Your task to perform on an android device: Do I have any events tomorrow? Image 0: 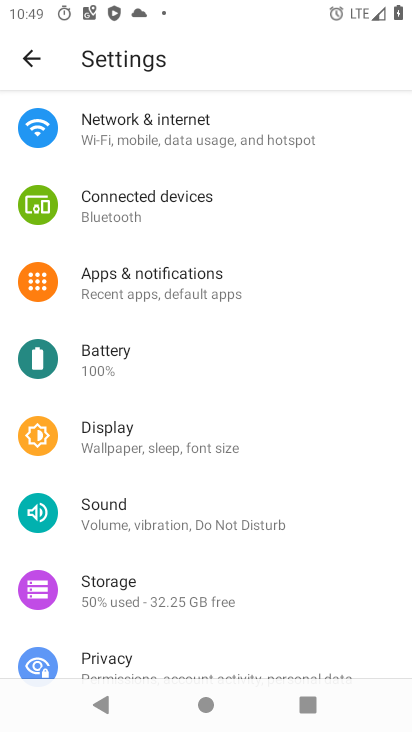
Step 0: press home button
Your task to perform on an android device: Do I have any events tomorrow? Image 1: 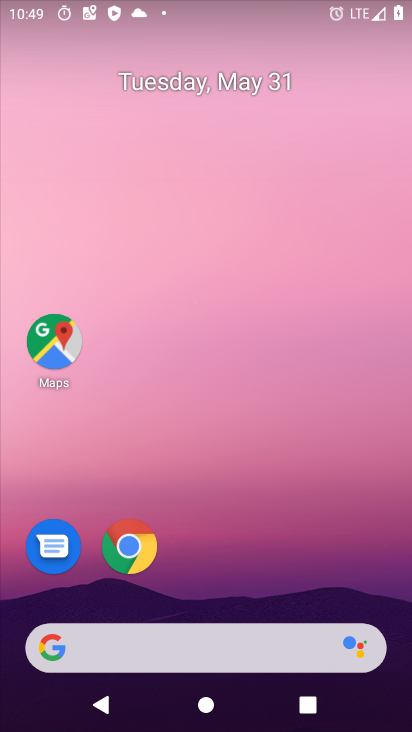
Step 1: drag from (224, 575) to (253, 288)
Your task to perform on an android device: Do I have any events tomorrow? Image 2: 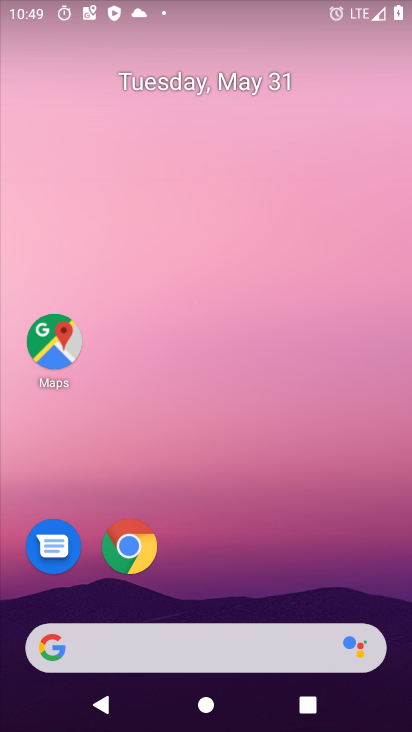
Step 2: drag from (277, 628) to (231, 55)
Your task to perform on an android device: Do I have any events tomorrow? Image 3: 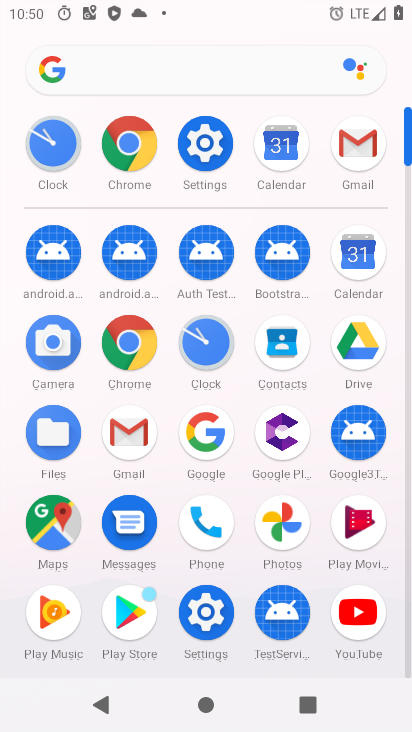
Step 3: click (276, 136)
Your task to perform on an android device: Do I have any events tomorrow? Image 4: 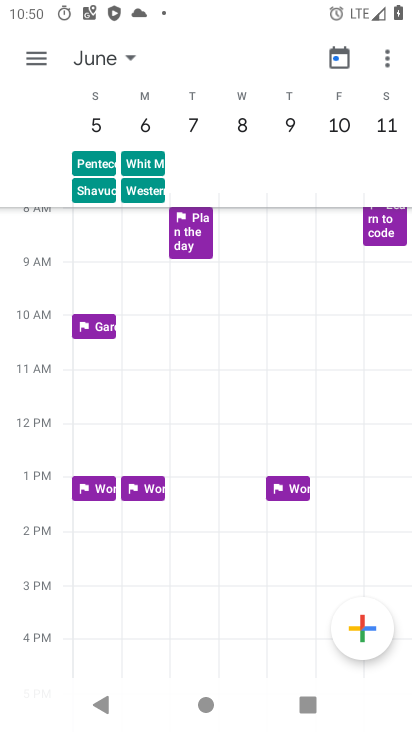
Step 4: drag from (149, 117) to (363, 110)
Your task to perform on an android device: Do I have any events tomorrow? Image 5: 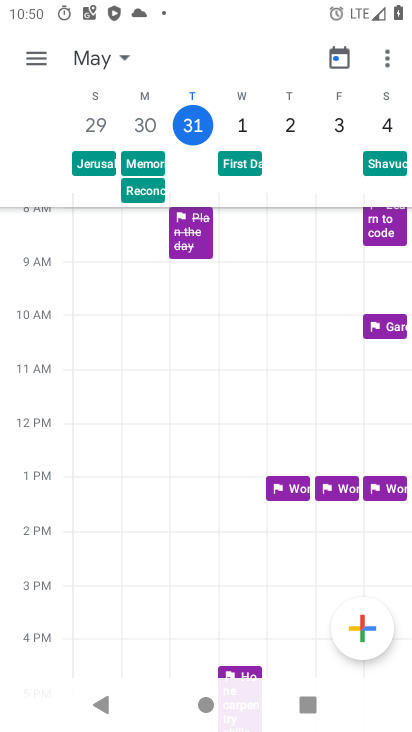
Step 5: click (278, 119)
Your task to perform on an android device: Do I have any events tomorrow? Image 6: 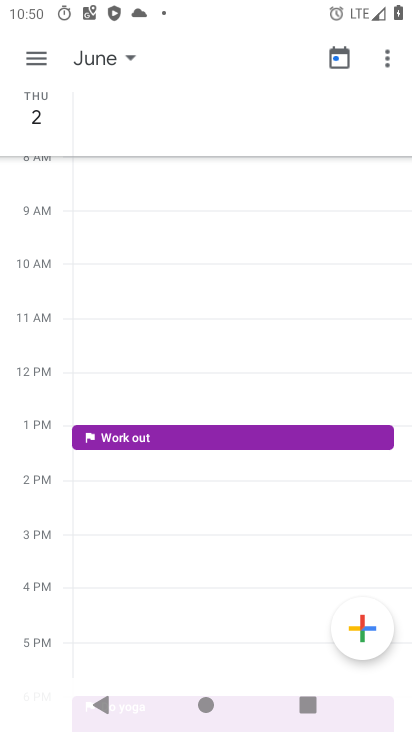
Step 6: task complete